Your task to perform on an android device: Open accessibility settings Image 0: 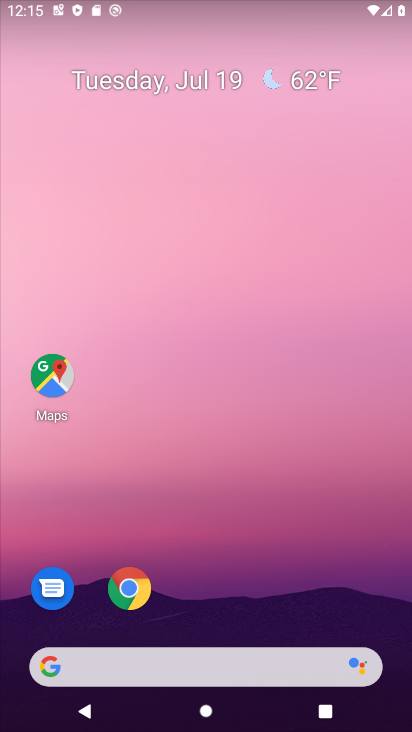
Step 0: drag from (264, 605) to (262, 189)
Your task to perform on an android device: Open accessibility settings Image 1: 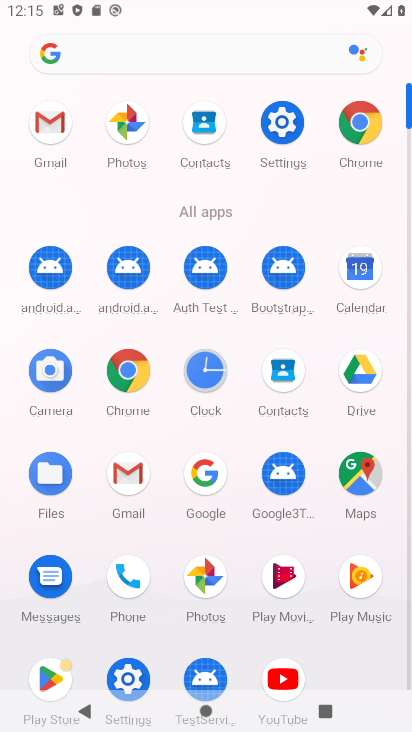
Step 1: click (119, 678)
Your task to perform on an android device: Open accessibility settings Image 2: 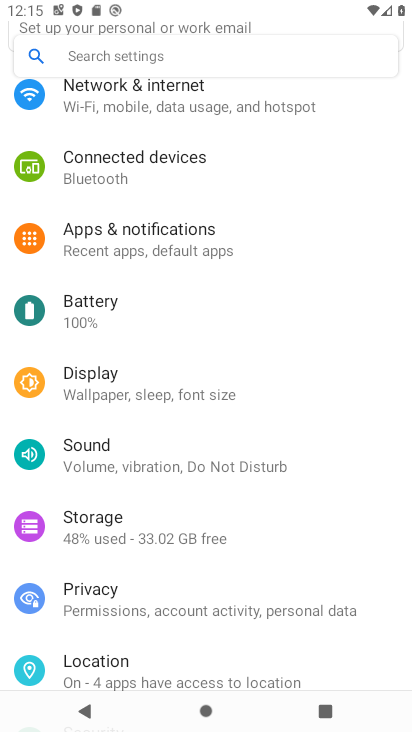
Step 2: drag from (119, 678) to (126, 425)
Your task to perform on an android device: Open accessibility settings Image 3: 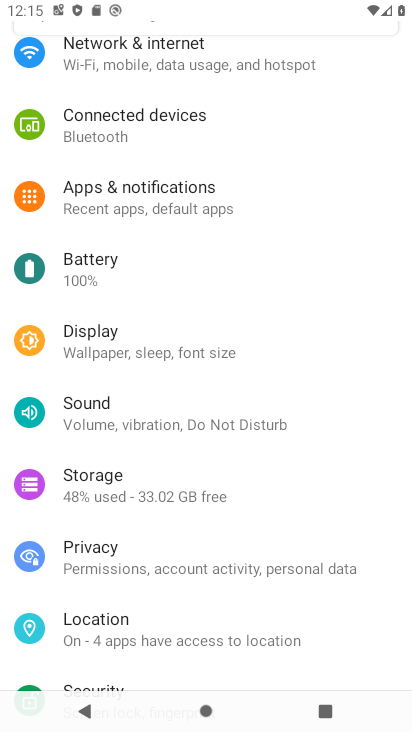
Step 3: drag from (130, 644) to (127, 226)
Your task to perform on an android device: Open accessibility settings Image 4: 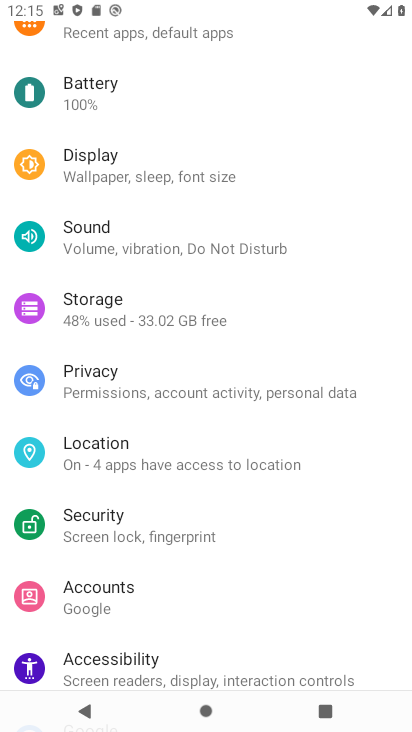
Step 4: click (157, 670)
Your task to perform on an android device: Open accessibility settings Image 5: 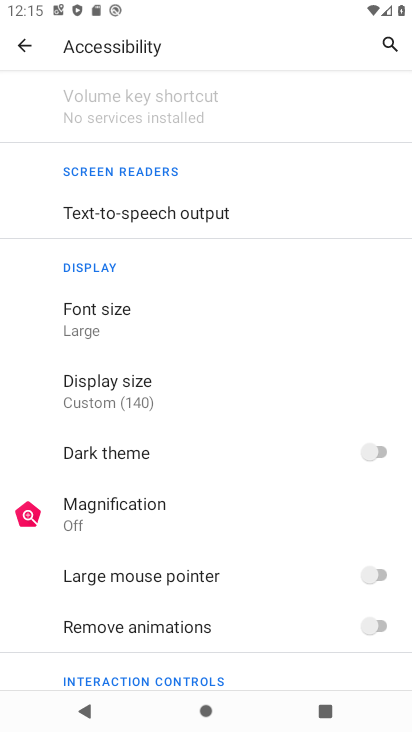
Step 5: task complete